Your task to perform on an android device: turn off picture-in-picture Image 0: 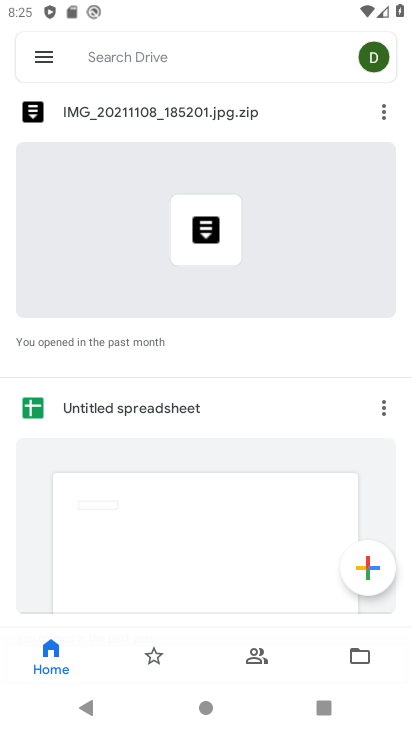
Step 0: press back button
Your task to perform on an android device: turn off picture-in-picture Image 1: 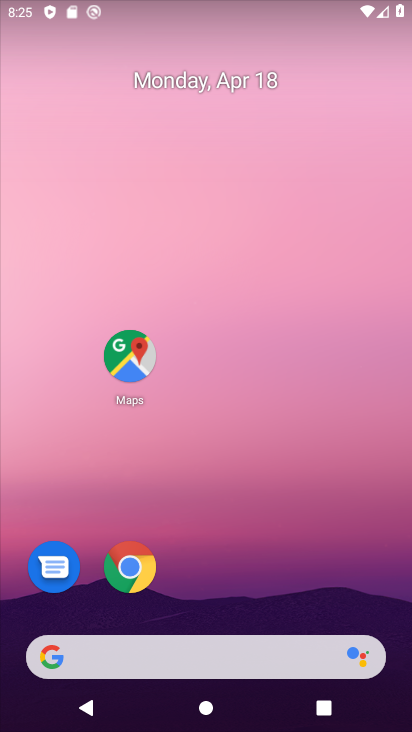
Step 1: drag from (182, 690) to (293, 295)
Your task to perform on an android device: turn off picture-in-picture Image 2: 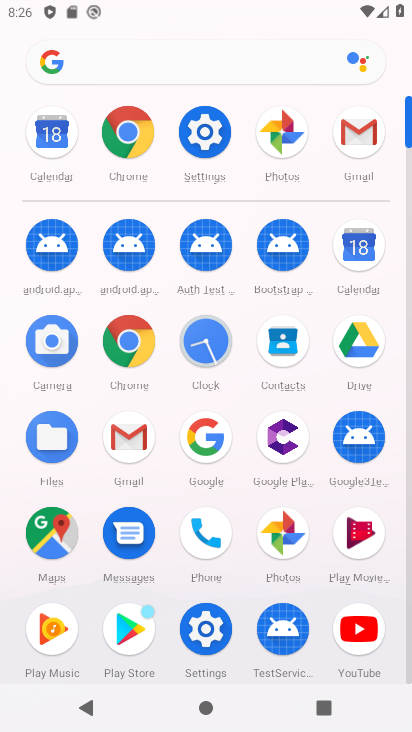
Step 2: click (203, 132)
Your task to perform on an android device: turn off picture-in-picture Image 3: 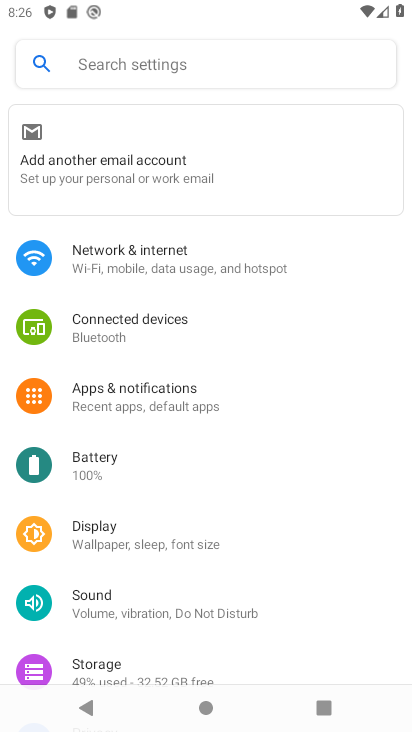
Step 3: click (184, 73)
Your task to perform on an android device: turn off picture-in-picture Image 4: 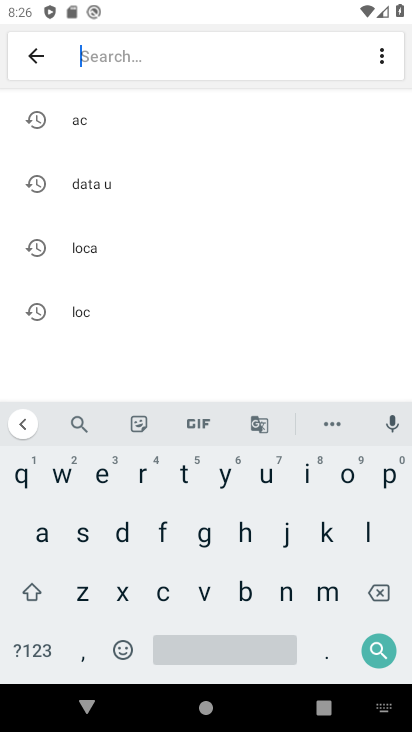
Step 4: click (387, 480)
Your task to perform on an android device: turn off picture-in-picture Image 5: 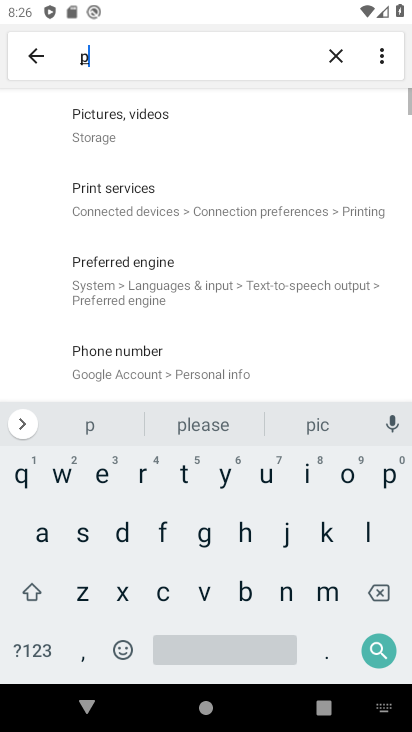
Step 5: click (308, 476)
Your task to perform on an android device: turn off picture-in-picture Image 6: 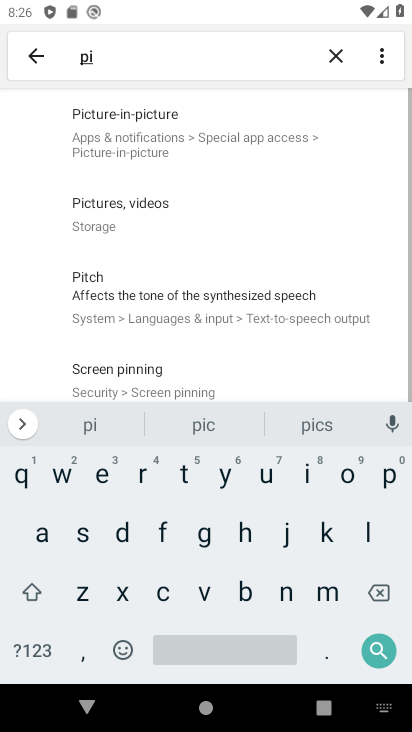
Step 6: click (161, 591)
Your task to perform on an android device: turn off picture-in-picture Image 7: 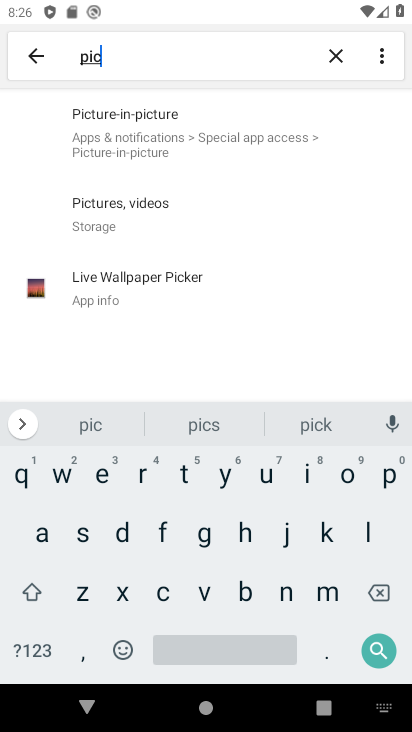
Step 7: click (205, 129)
Your task to perform on an android device: turn off picture-in-picture Image 8: 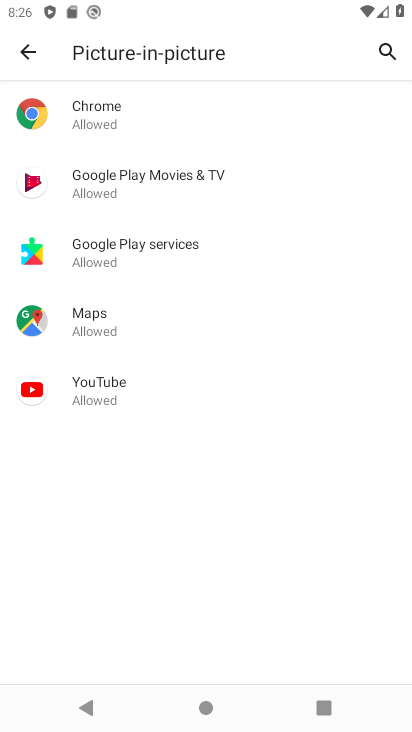
Step 8: task complete